Your task to perform on an android device: see sites visited before in the chrome app Image 0: 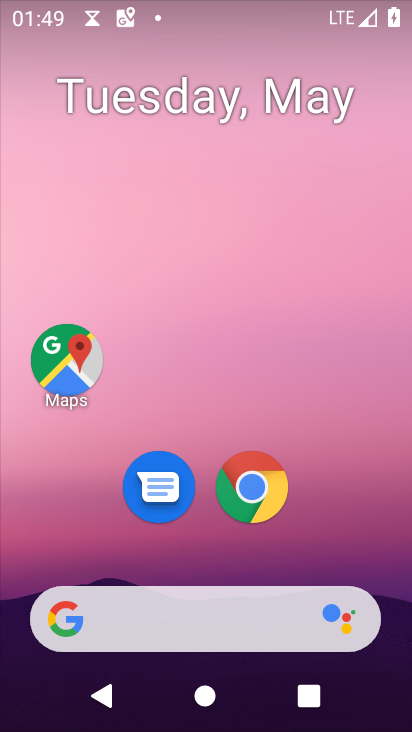
Step 0: click (239, 503)
Your task to perform on an android device: see sites visited before in the chrome app Image 1: 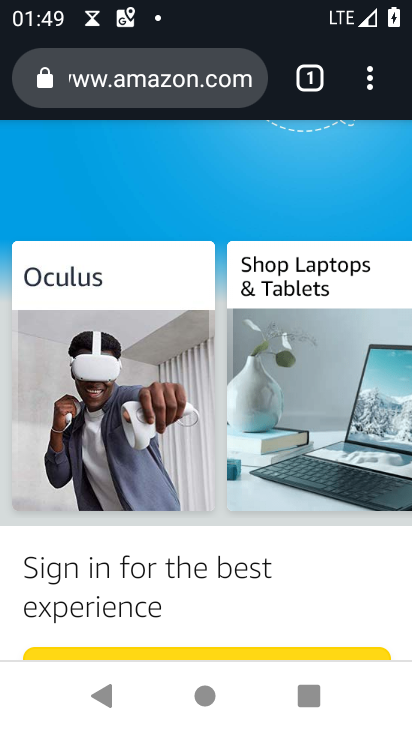
Step 1: click (369, 60)
Your task to perform on an android device: see sites visited before in the chrome app Image 2: 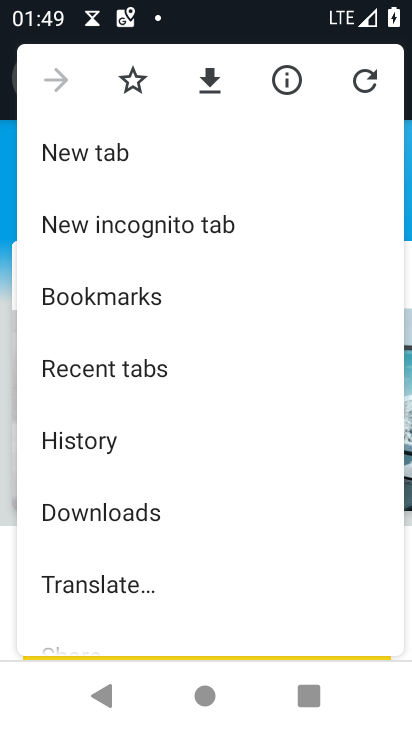
Step 2: click (145, 363)
Your task to perform on an android device: see sites visited before in the chrome app Image 3: 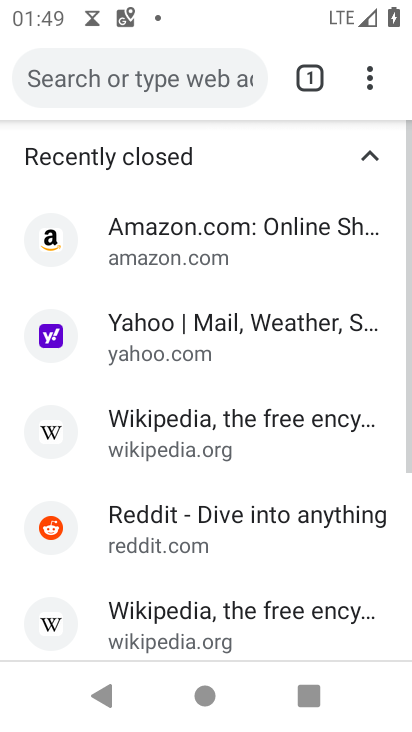
Step 3: task complete